Your task to perform on an android device: Open accessibility settings Image 0: 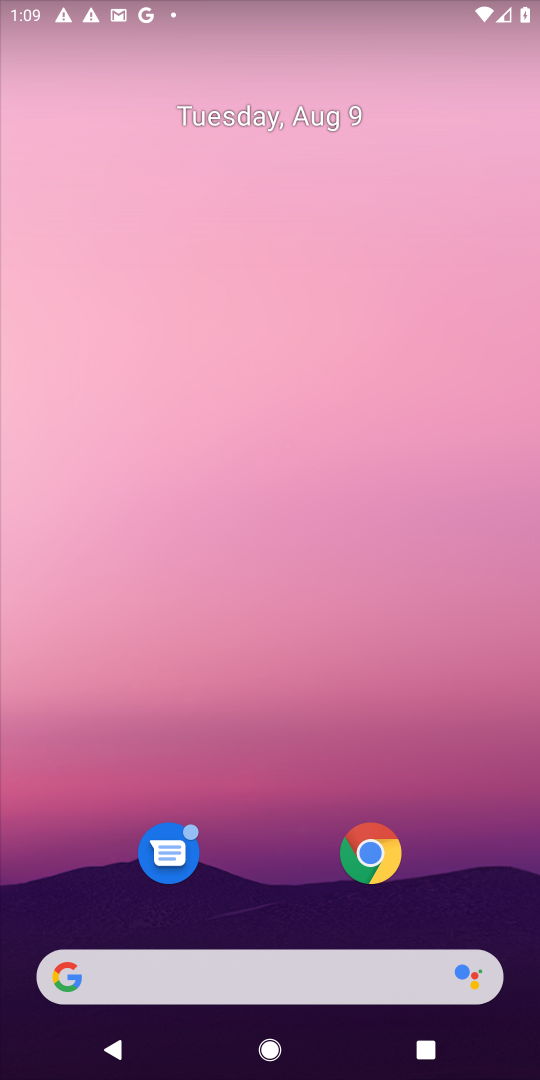
Step 0: drag from (276, 885) to (294, 0)
Your task to perform on an android device: Open accessibility settings Image 1: 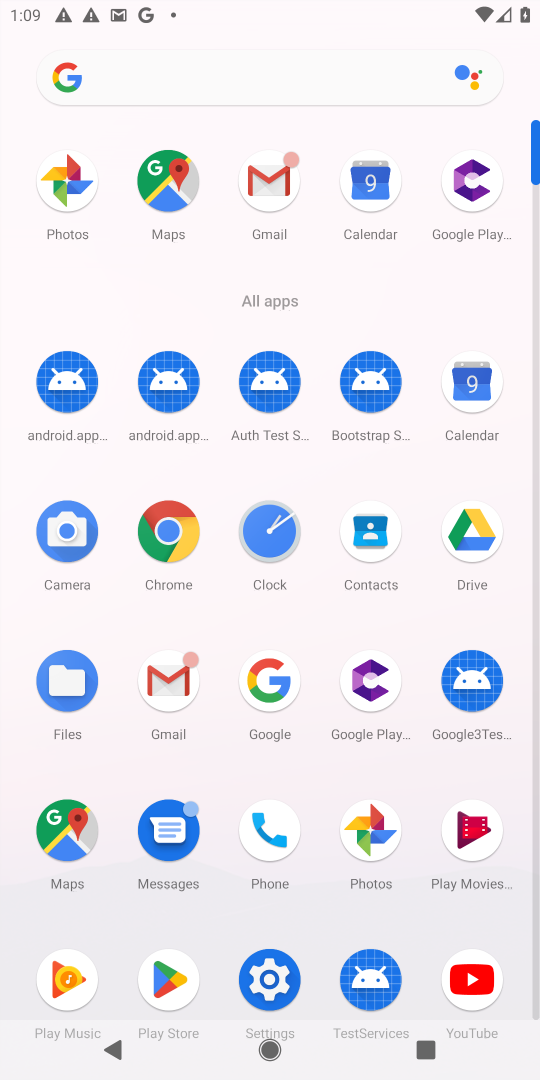
Step 1: click (263, 969)
Your task to perform on an android device: Open accessibility settings Image 2: 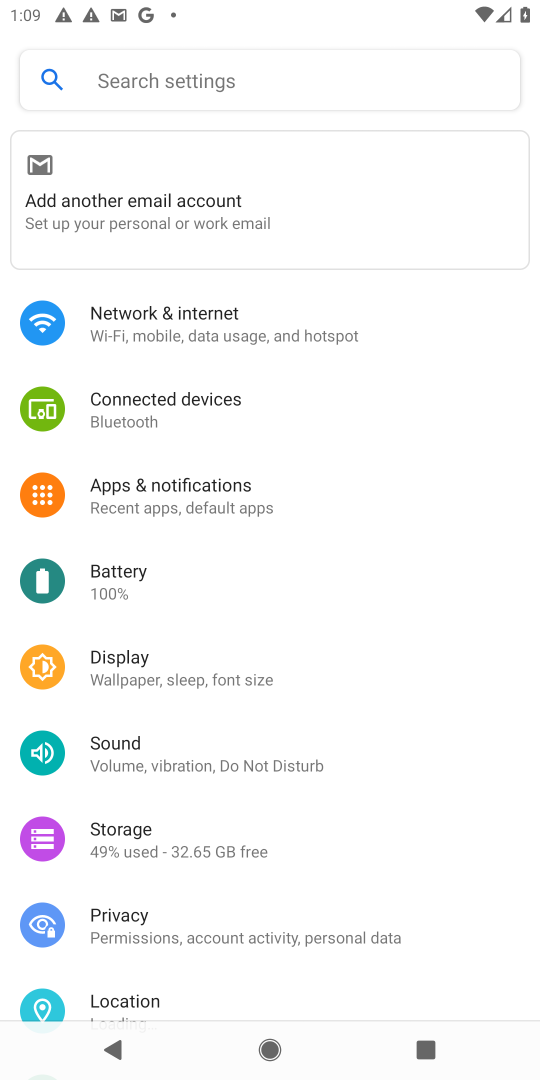
Step 2: drag from (251, 932) to (266, 153)
Your task to perform on an android device: Open accessibility settings Image 3: 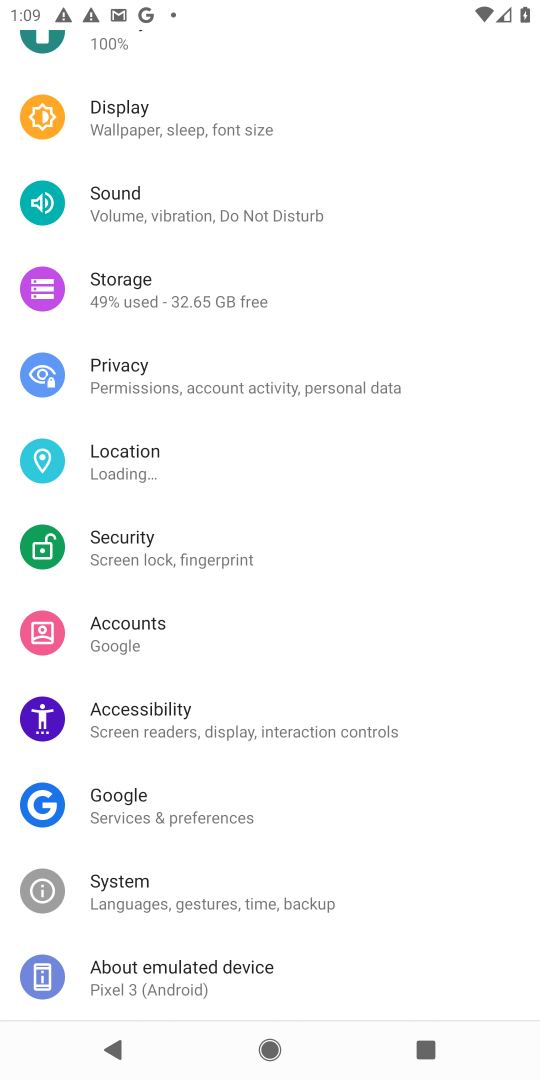
Step 3: click (215, 705)
Your task to perform on an android device: Open accessibility settings Image 4: 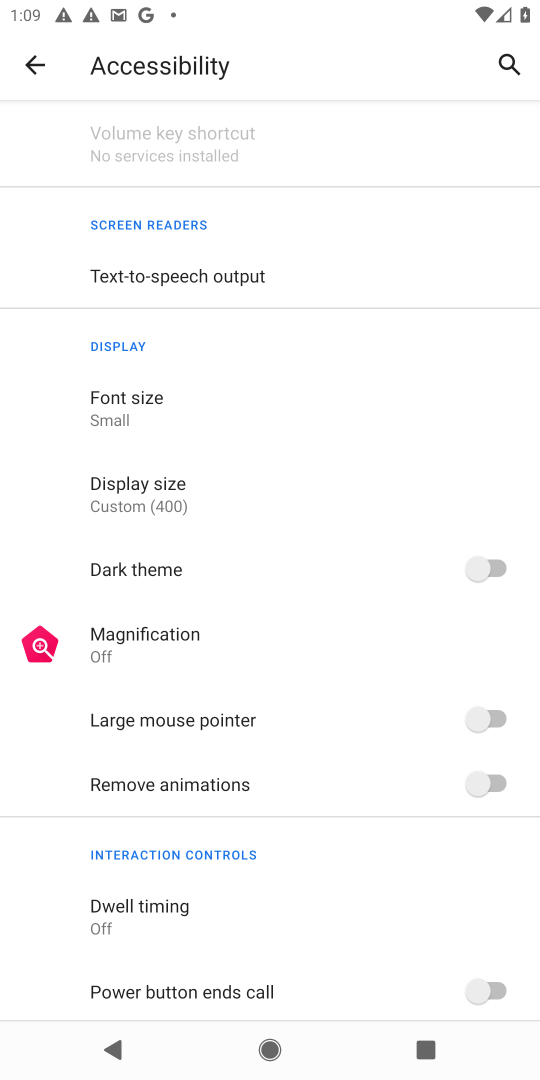
Step 4: task complete